Your task to perform on an android device: Open Amazon Image 0: 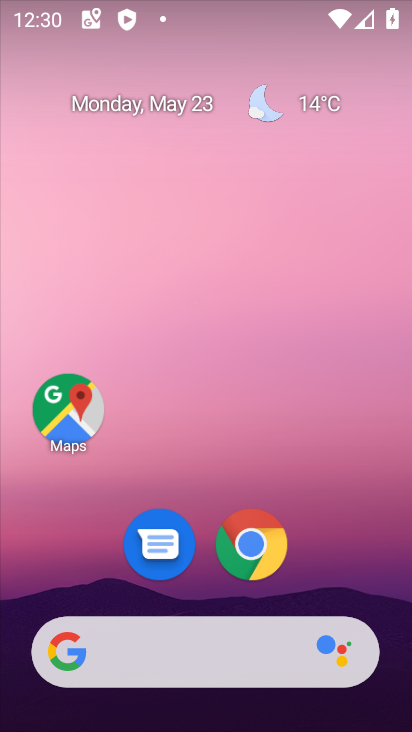
Step 0: click (241, 539)
Your task to perform on an android device: Open Amazon Image 1: 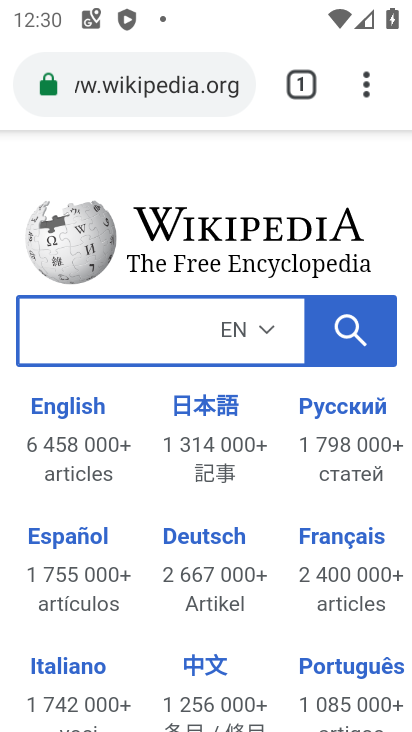
Step 1: click (145, 84)
Your task to perform on an android device: Open Amazon Image 2: 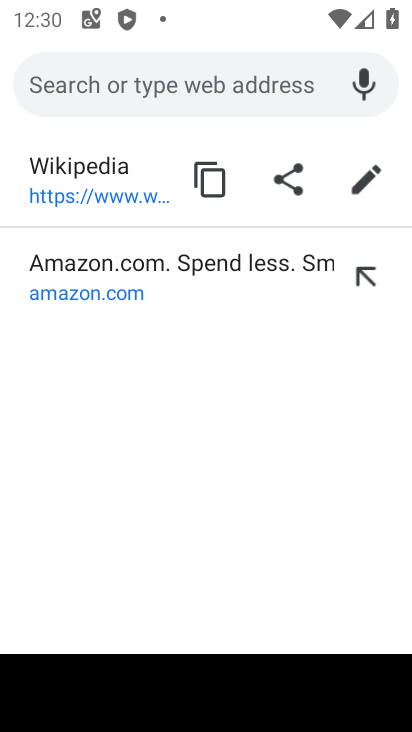
Step 2: click (106, 297)
Your task to perform on an android device: Open Amazon Image 3: 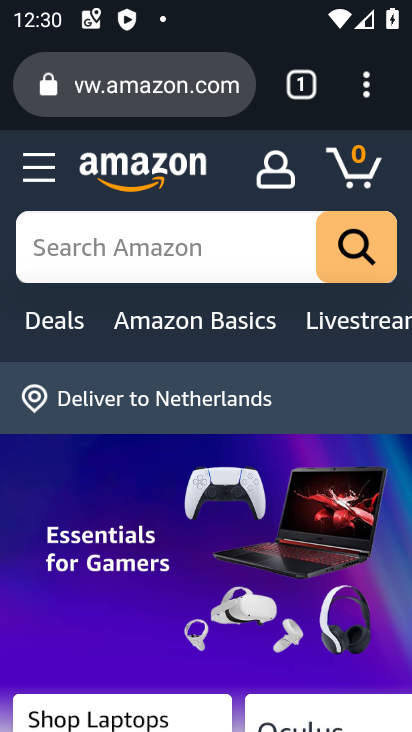
Step 3: task complete